Your task to perform on an android device: Show me the alarms in the clock app Image 0: 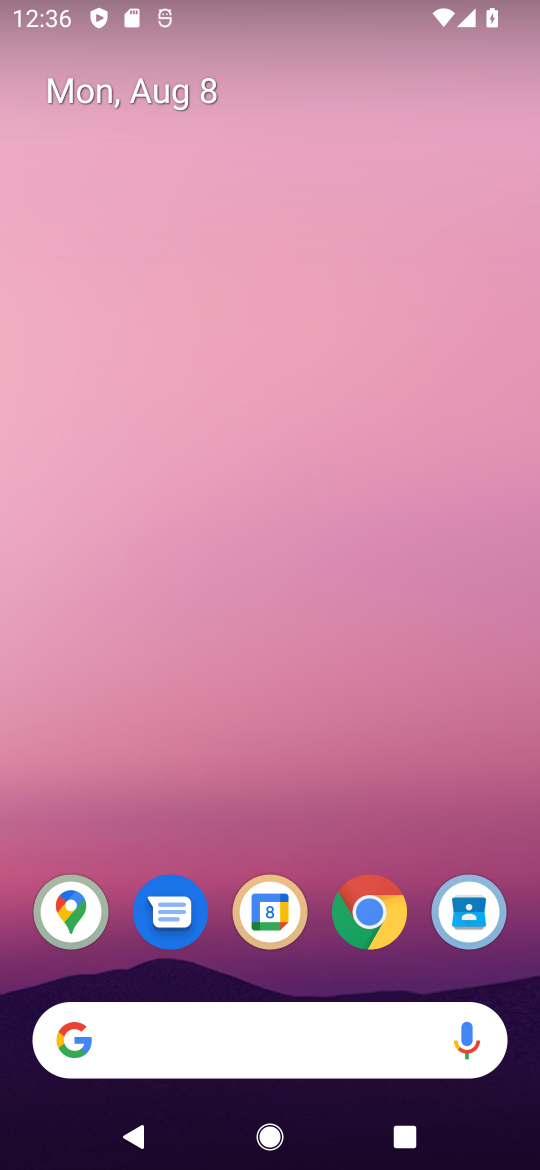
Step 0: drag from (249, 1005) to (363, 20)
Your task to perform on an android device: Show me the alarms in the clock app Image 1: 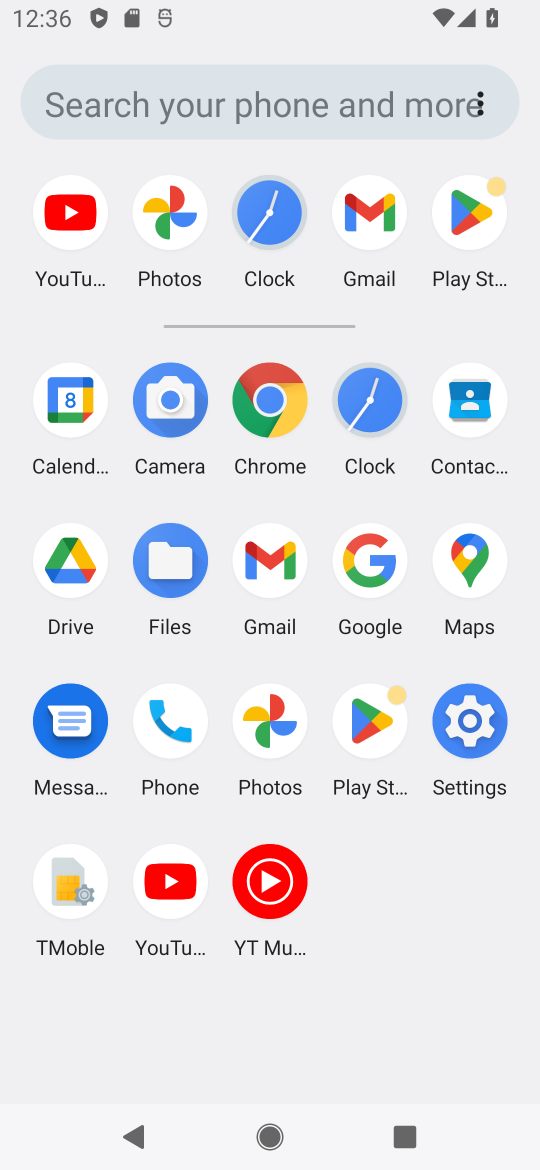
Step 1: click (381, 383)
Your task to perform on an android device: Show me the alarms in the clock app Image 2: 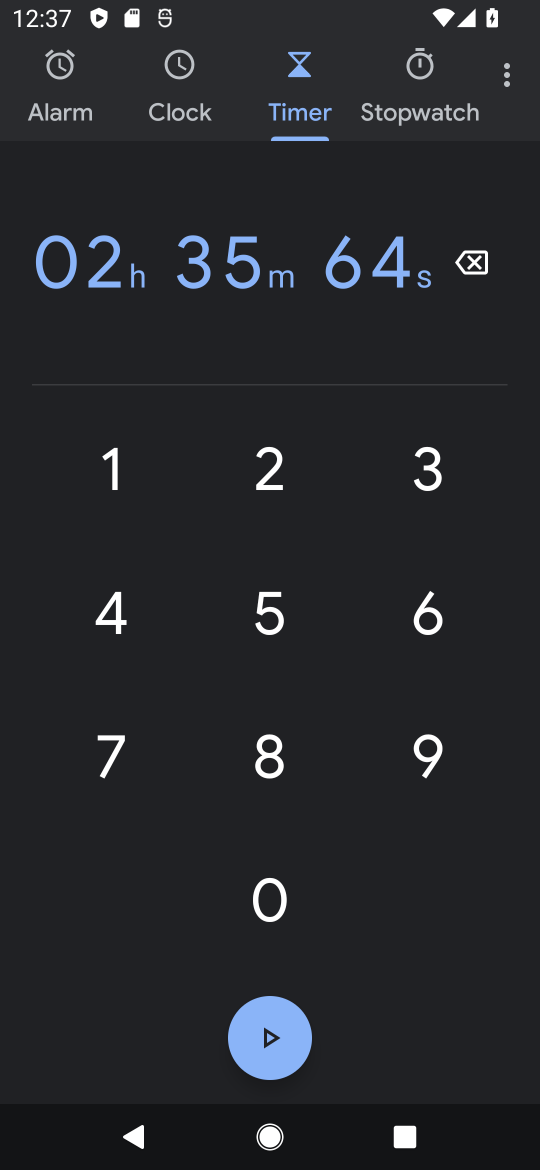
Step 2: click (80, 112)
Your task to perform on an android device: Show me the alarms in the clock app Image 3: 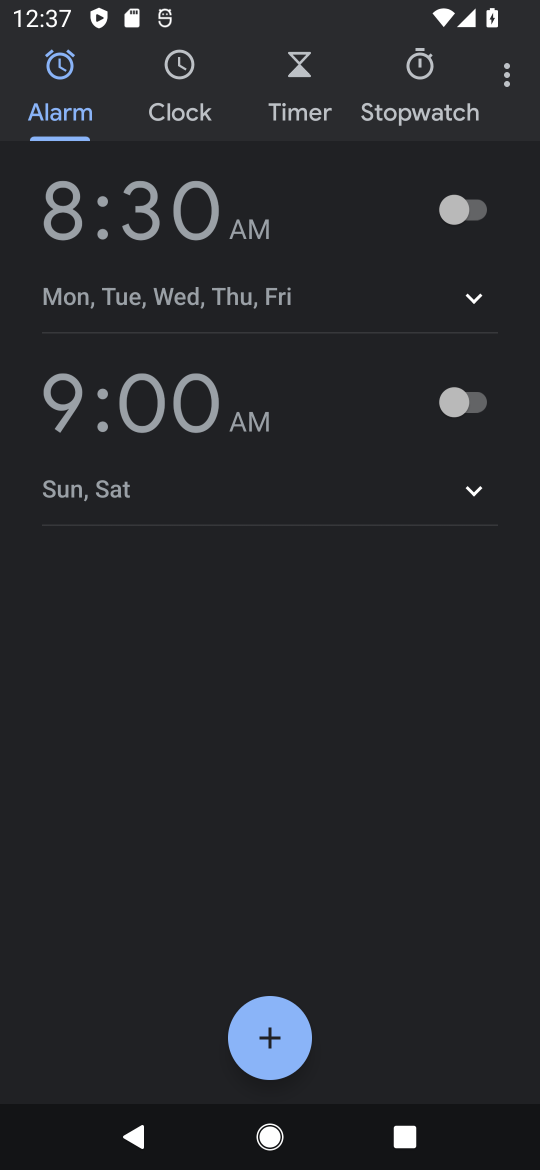
Step 3: task complete